Your task to perform on an android device: Open the map Image 0: 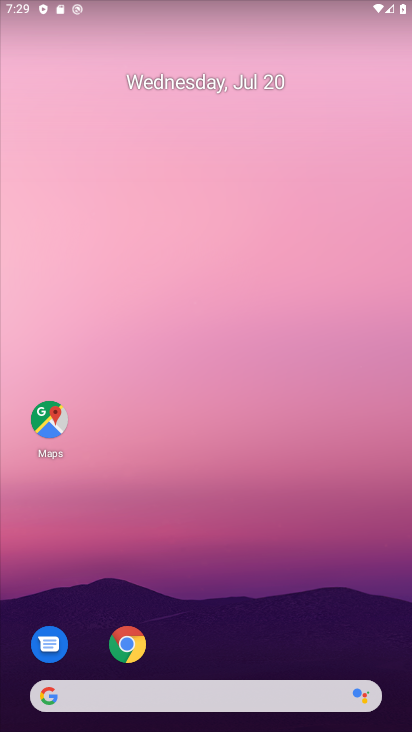
Step 0: click (32, 424)
Your task to perform on an android device: Open the map Image 1: 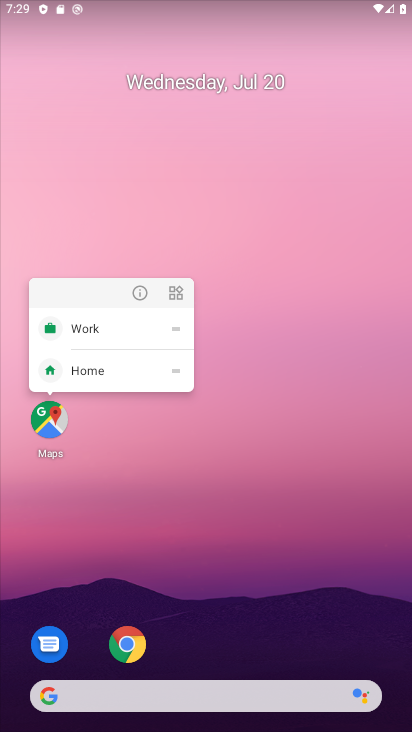
Step 1: click (43, 422)
Your task to perform on an android device: Open the map Image 2: 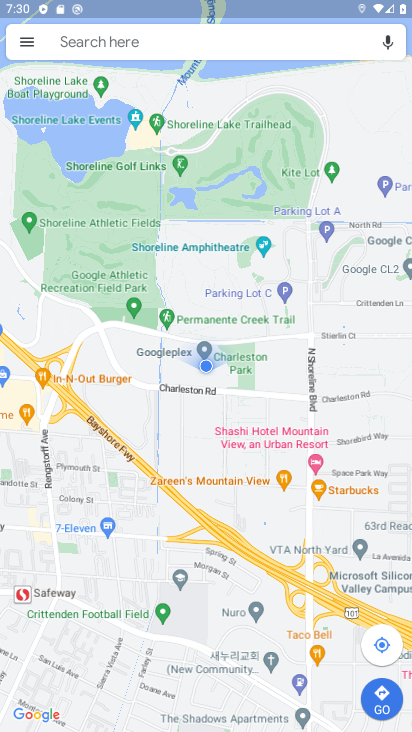
Step 2: task complete